Your task to perform on an android device: Go to location settings Image 0: 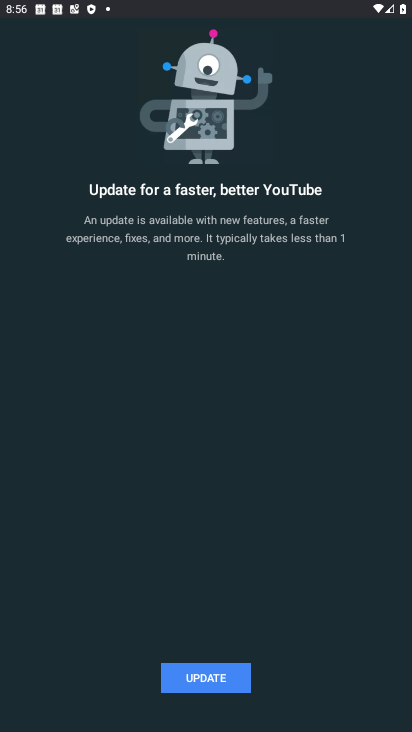
Step 0: press home button
Your task to perform on an android device: Go to location settings Image 1: 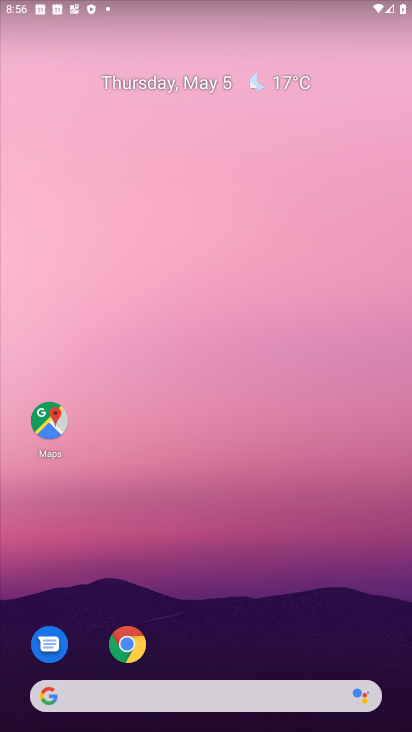
Step 1: drag from (182, 652) to (180, 318)
Your task to perform on an android device: Go to location settings Image 2: 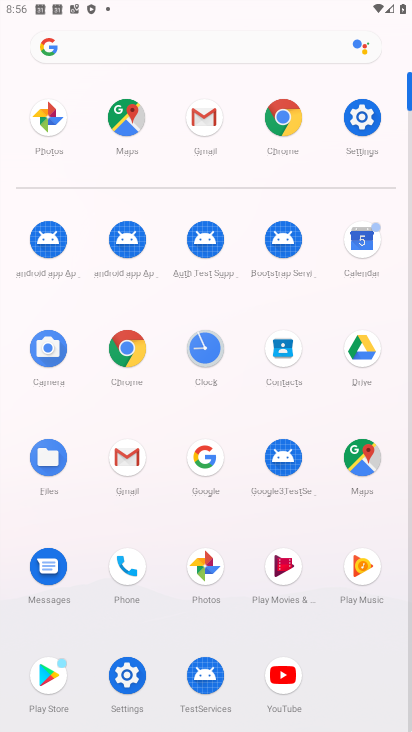
Step 2: click (368, 115)
Your task to perform on an android device: Go to location settings Image 3: 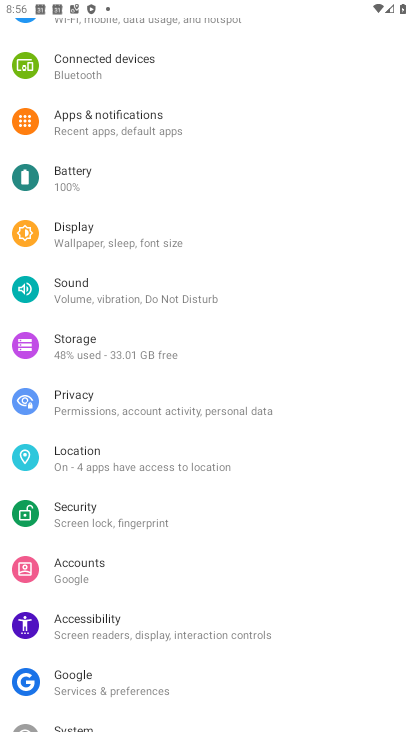
Step 3: click (87, 458)
Your task to perform on an android device: Go to location settings Image 4: 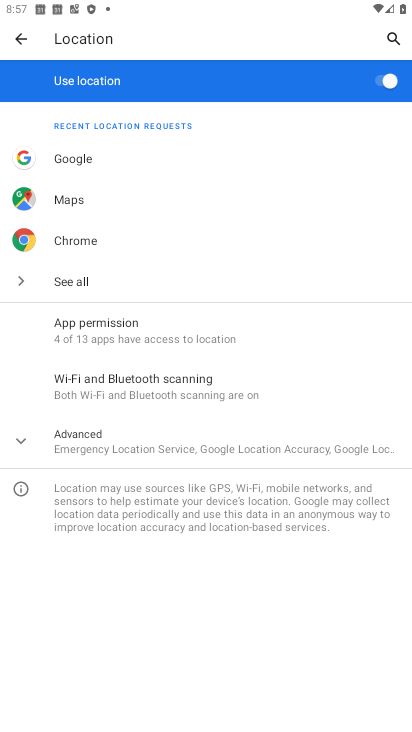
Step 4: task complete